Your task to perform on an android device: turn smart compose on in the gmail app Image 0: 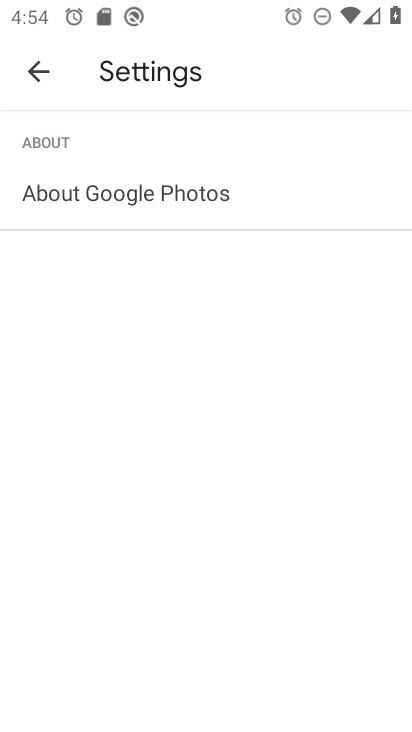
Step 0: press home button
Your task to perform on an android device: turn smart compose on in the gmail app Image 1: 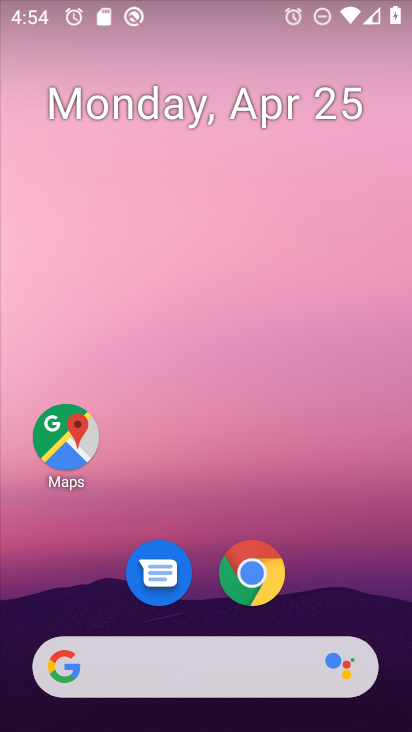
Step 1: drag from (390, 507) to (398, 126)
Your task to perform on an android device: turn smart compose on in the gmail app Image 2: 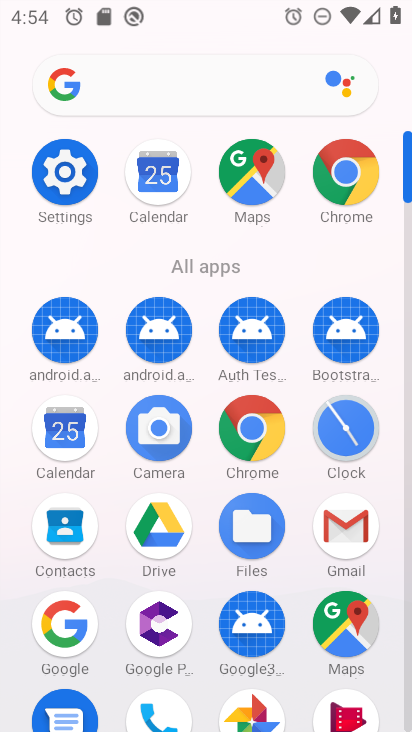
Step 2: drag from (390, 590) to (400, 457)
Your task to perform on an android device: turn smart compose on in the gmail app Image 3: 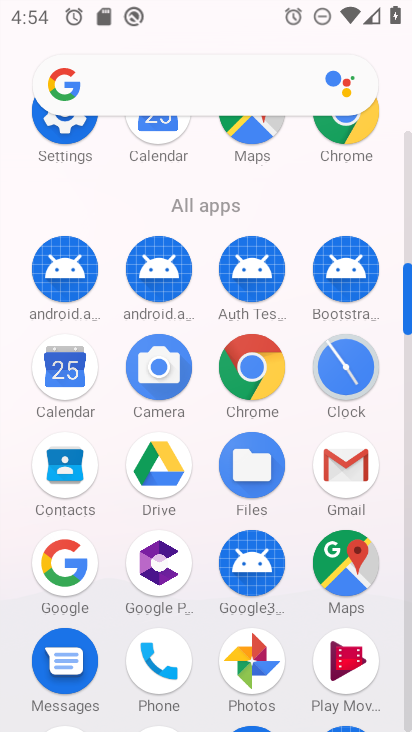
Step 3: click (358, 464)
Your task to perform on an android device: turn smart compose on in the gmail app Image 4: 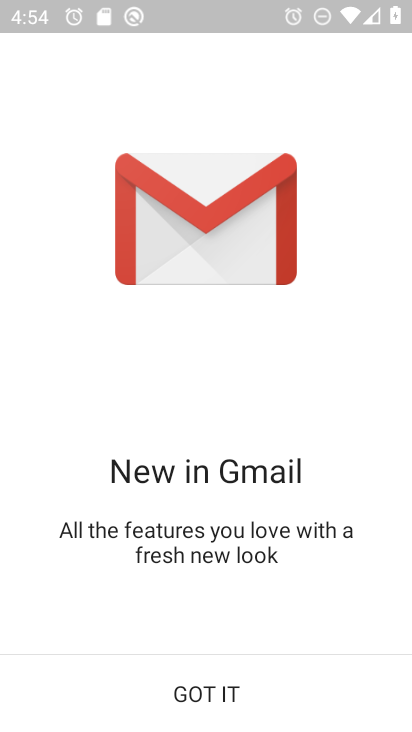
Step 4: click (179, 687)
Your task to perform on an android device: turn smart compose on in the gmail app Image 5: 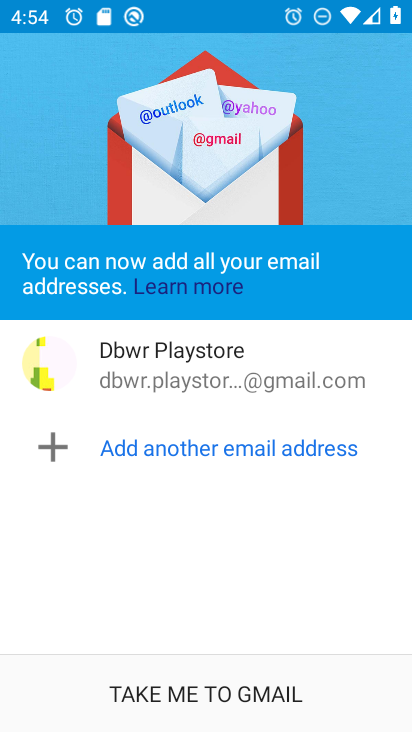
Step 5: click (179, 687)
Your task to perform on an android device: turn smart compose on in the gmail app Image 6: 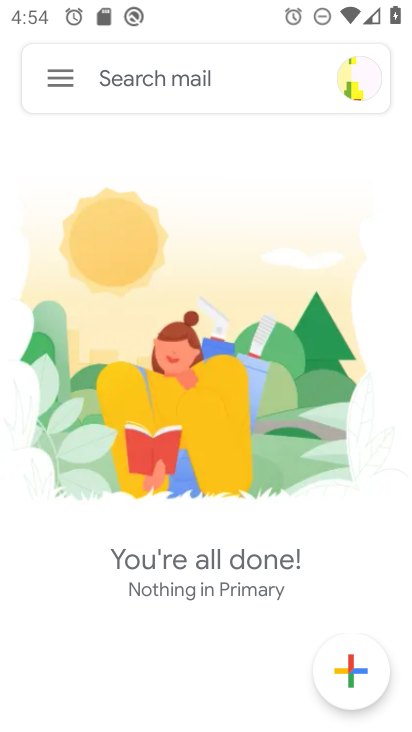
Step 6: click (63, 84)
Your task to perform on an android device: turn smart compose on in the gmail app Image 7: 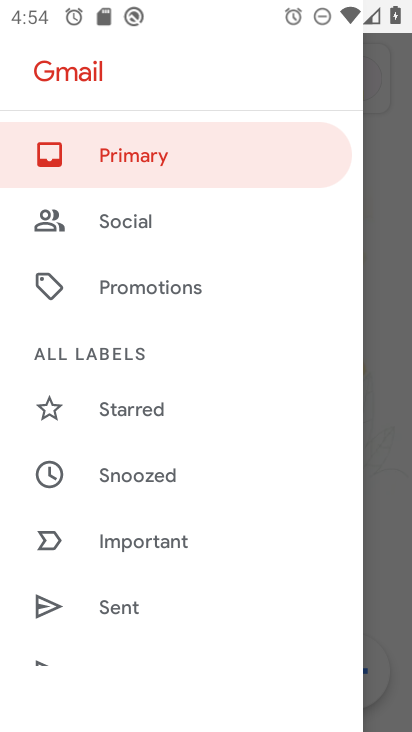
Step 7: drag from (243, 564) to (258, 195)
Your task to perform on an android device: turn smart compose on in the gmail app Image 8: 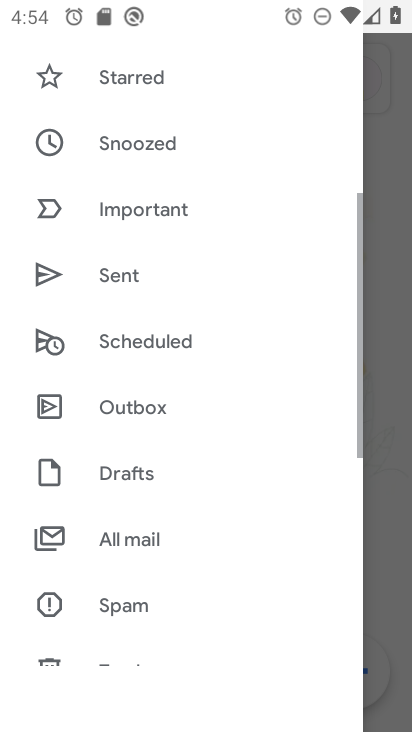
Step 8: drag from (173, 632) to (208, 225)
Your task to perform on an android device: turn smart compose on in the gmail app Image 9: 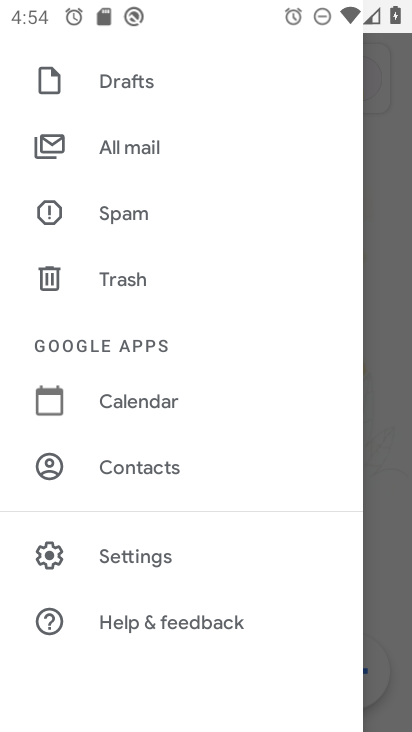
Step 9: click (148, 564)
Your task to perform on an android device: turn smart compose on in the gmail app Image 10: 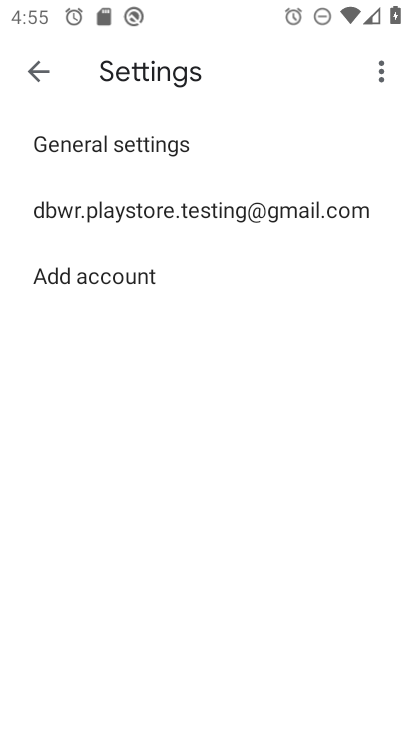
Step 10: click (108, 213)
Your task to perform on an android device: turn smart compose on in the gmail app Image 11: 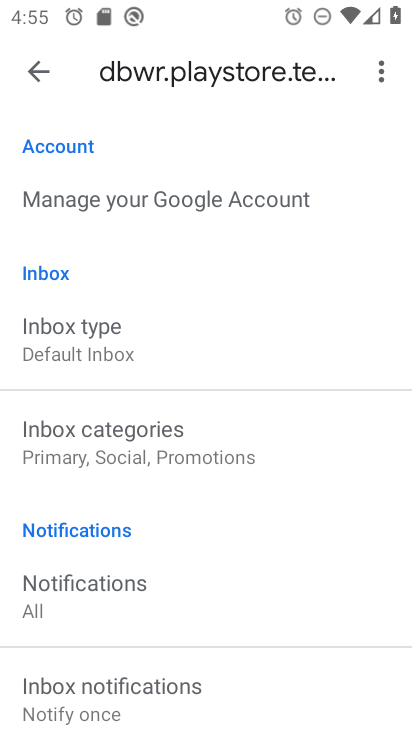
Step 11: task complete